Your task to perform on an android device: snooze an email in the gmail app Image 0: 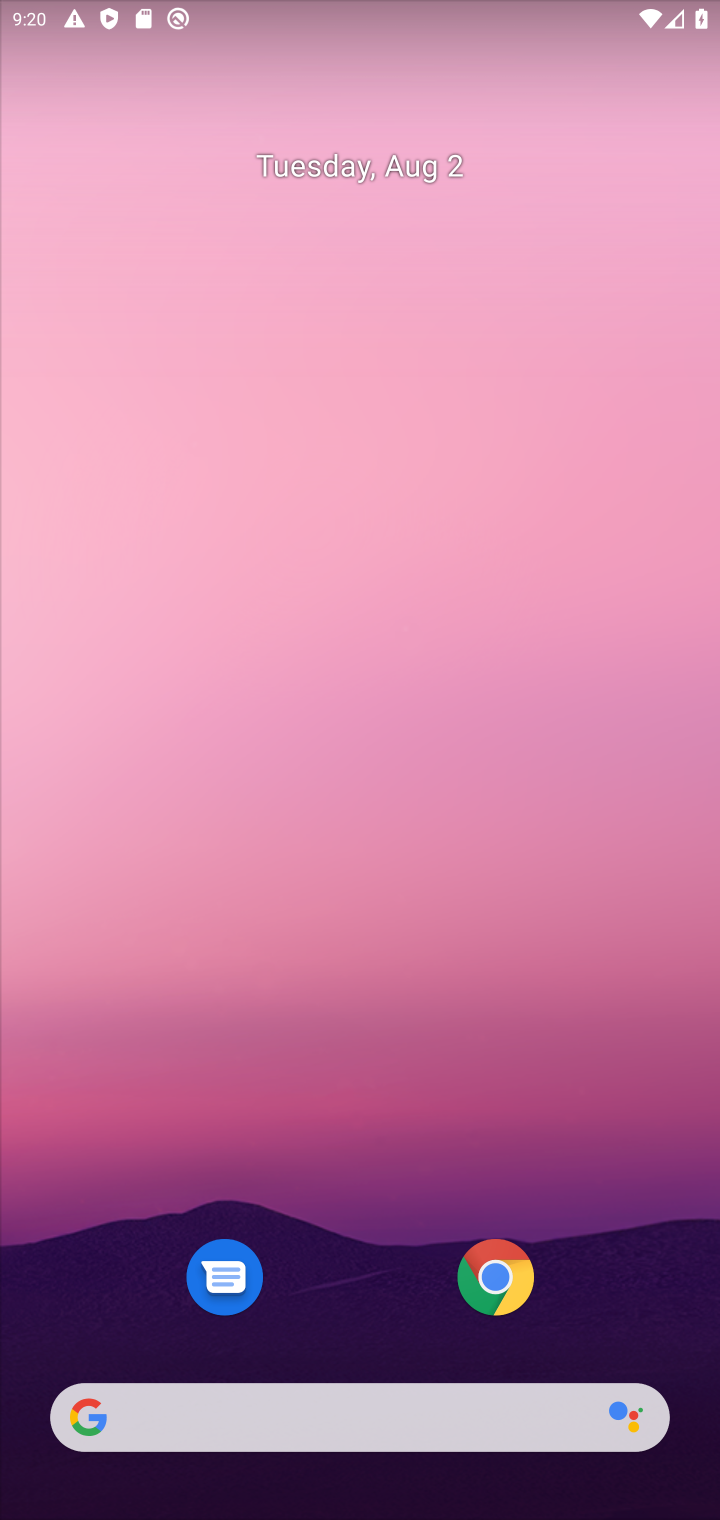
Step 0: drag from (500, 611) to (538, 461)
Your task to perform on an android device: snooze an email in the gmail app Image 1: 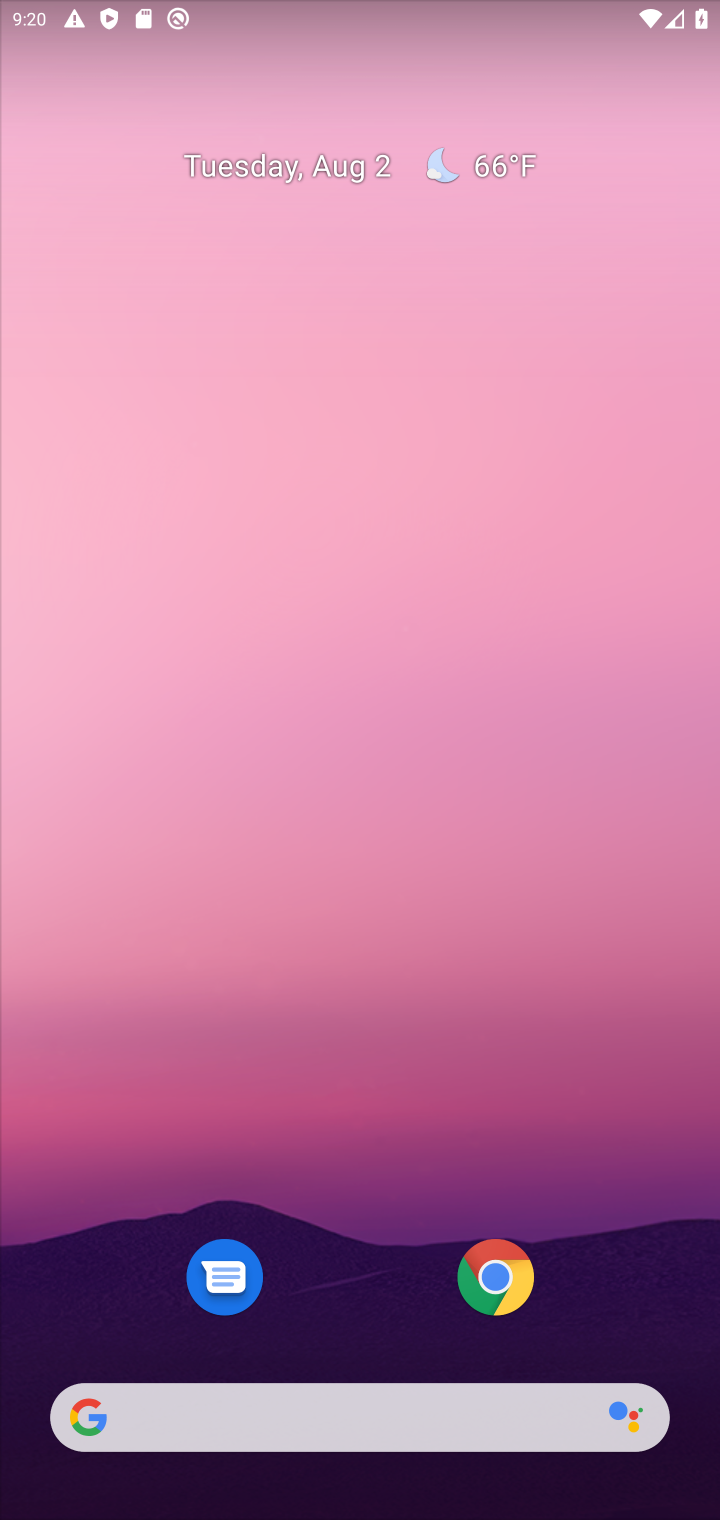
Step 1: drag from (453, 802) to (498, 25)
Your task to perform on an android device: snooze an email in the gmail app Image 2: 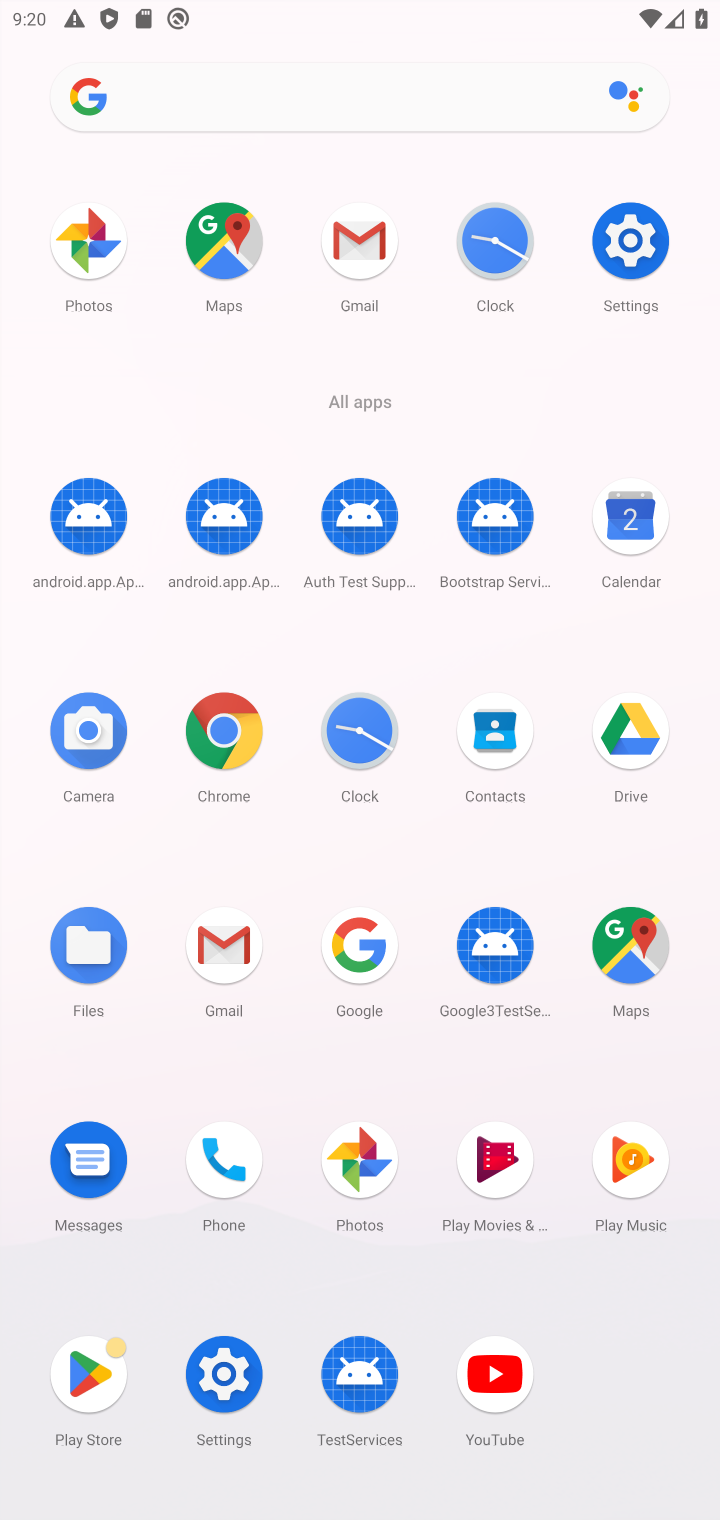
Step 2: click (210, 909)
Your task to perform on an android device: snooze an email in the gmail app Image 3: 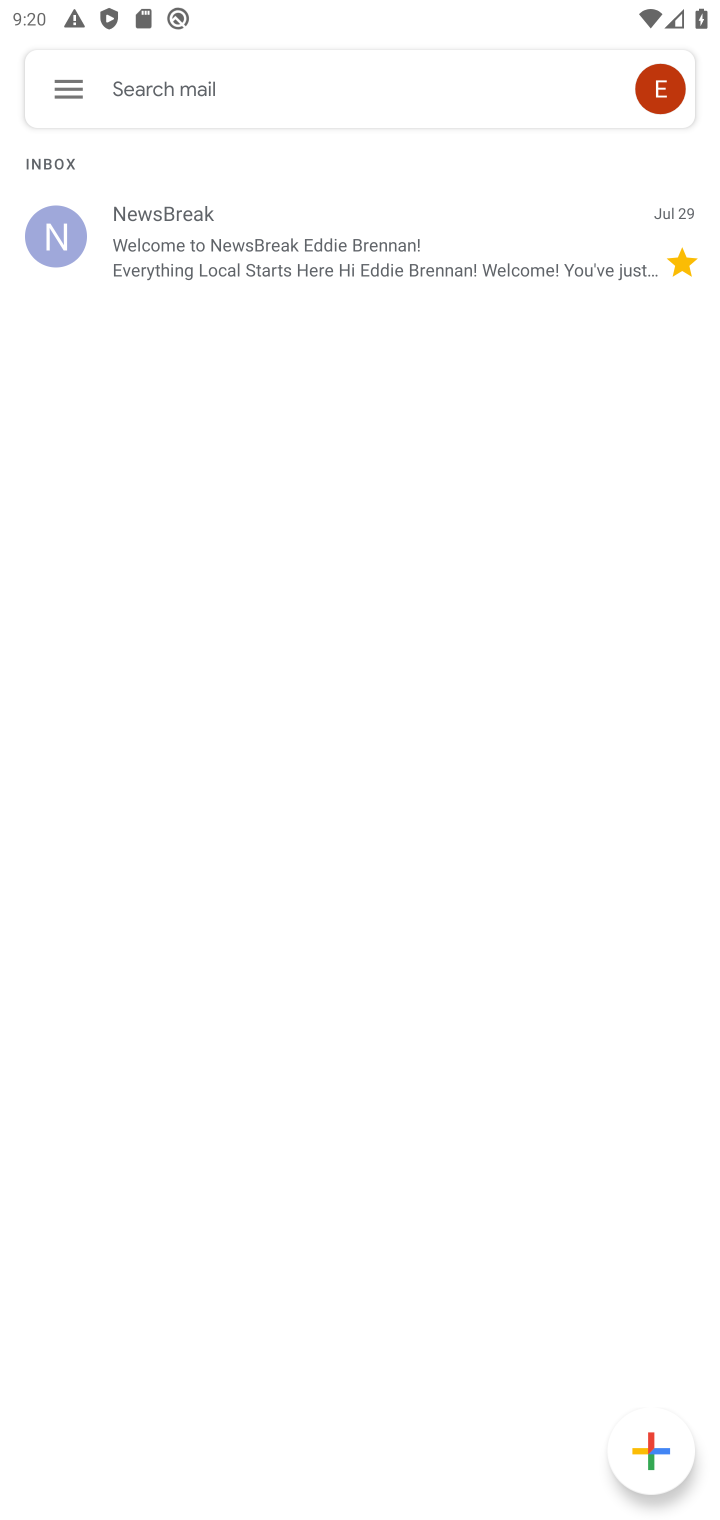
Step 3: click (64, 234)
Your task to perform on an android device: snooze an email in the gmail app Image 4: 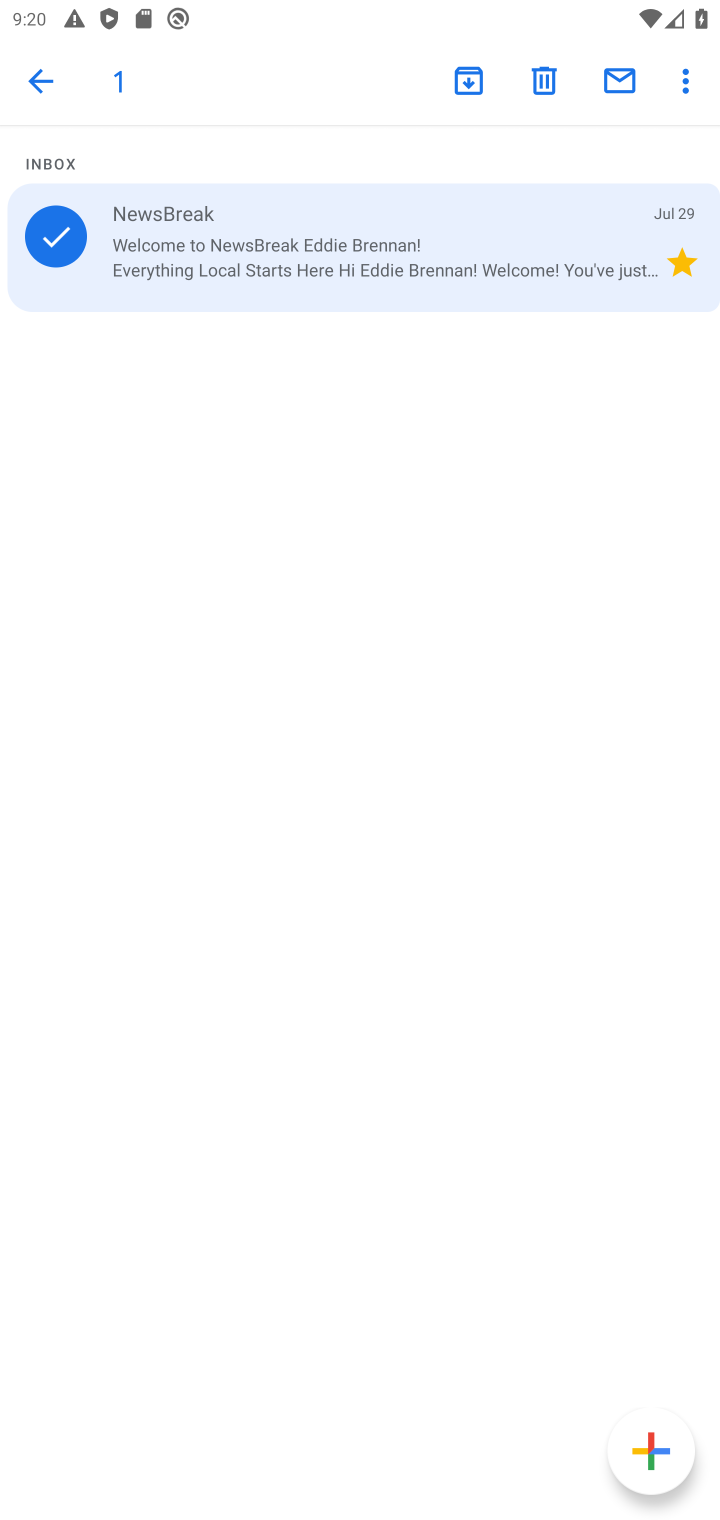
Step 4: click (681, 80)
Your task to perform on an android device: snooze an email in the gmail app Image 5: 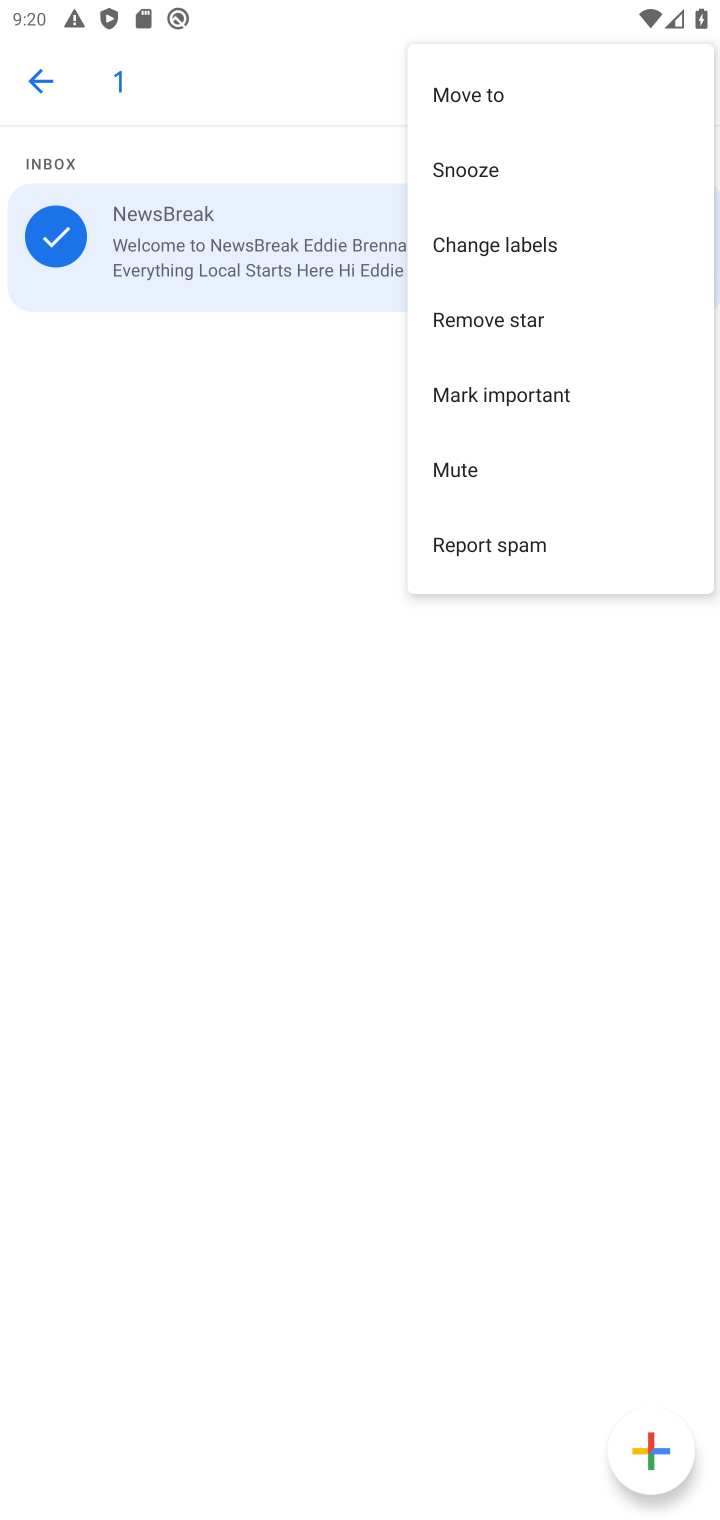
Step 5: click (516, 164)
Your task to perform on an android device: snooze an email in the gmail app Image 6: 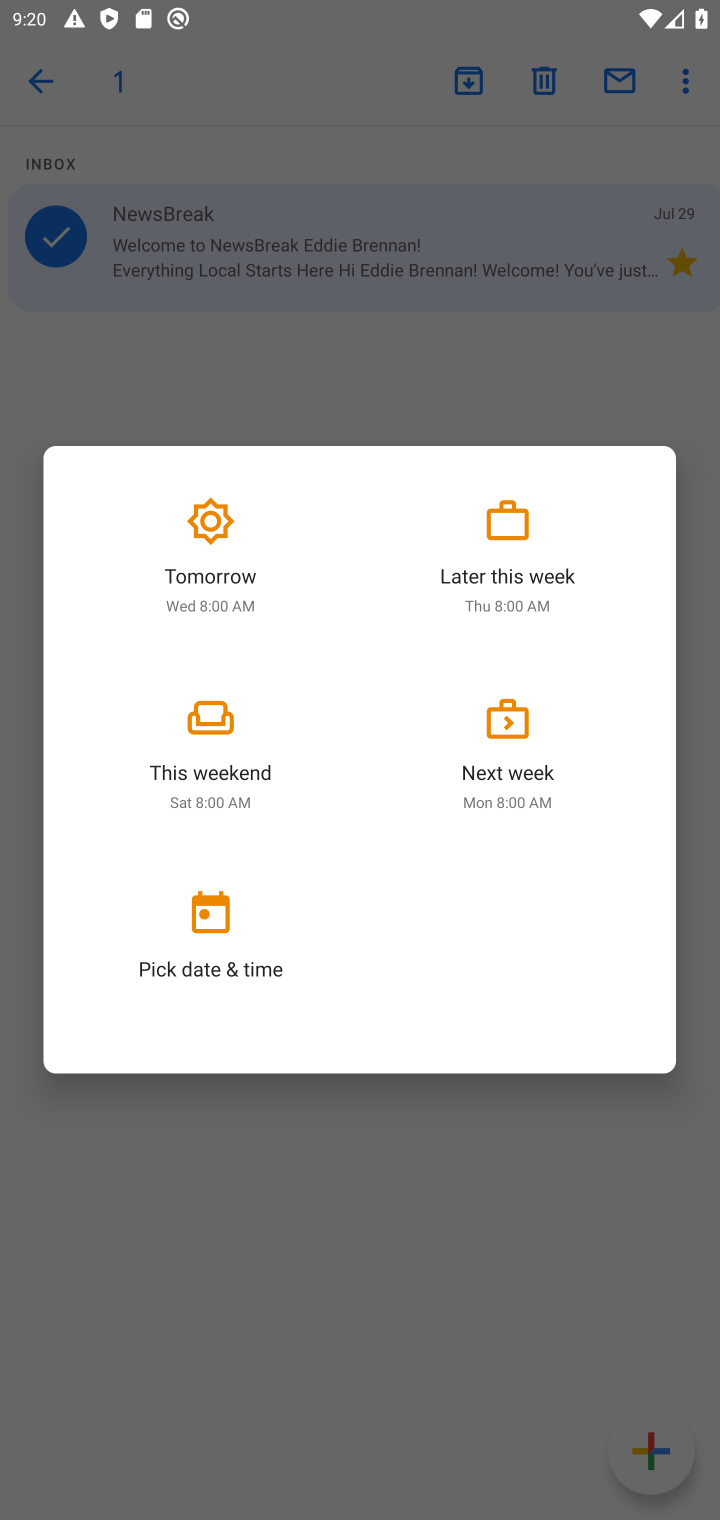
Step 6: click (205, 531)
Your task to perform on an android device: snooze an email in the gmail app Image 7: 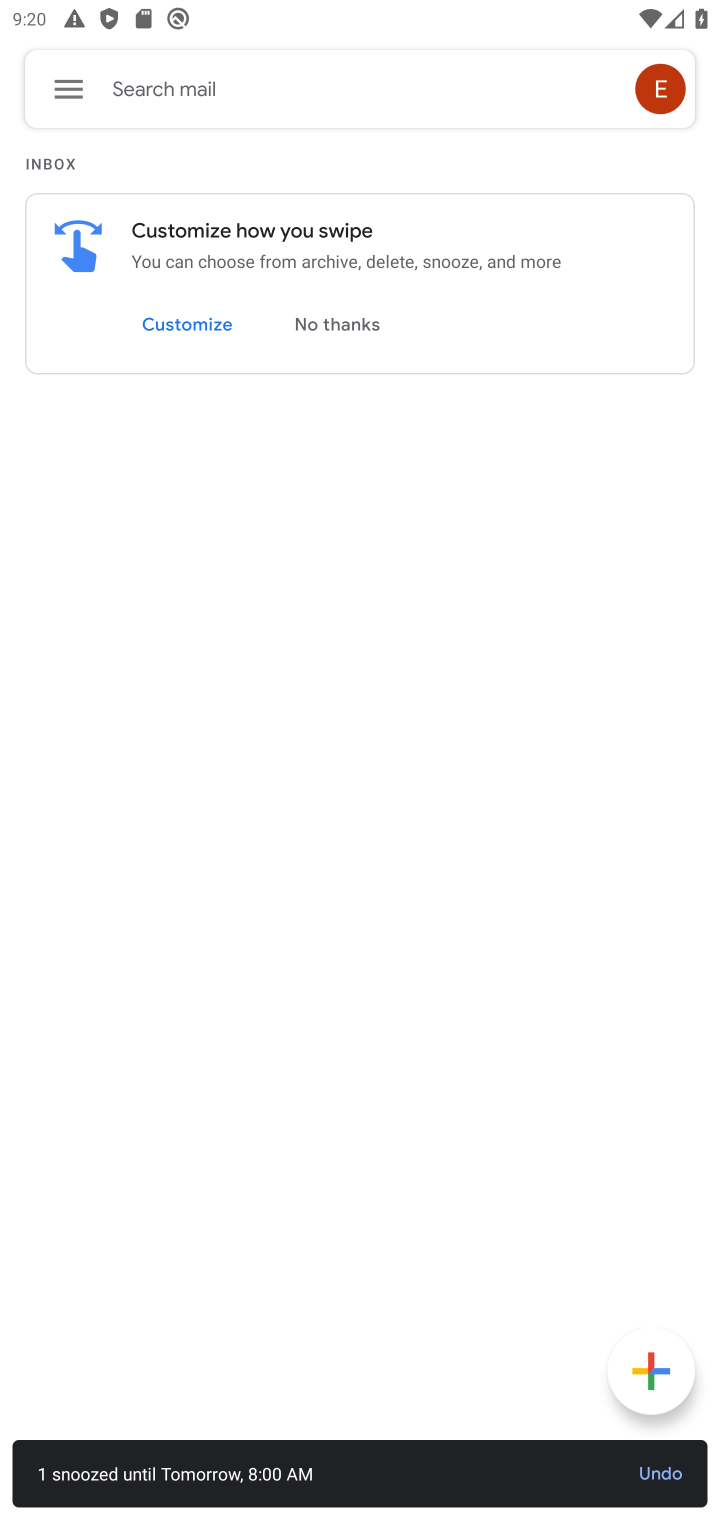
Step 7: task complete